Your task to perform on an android device: turn on wifi Image 0: 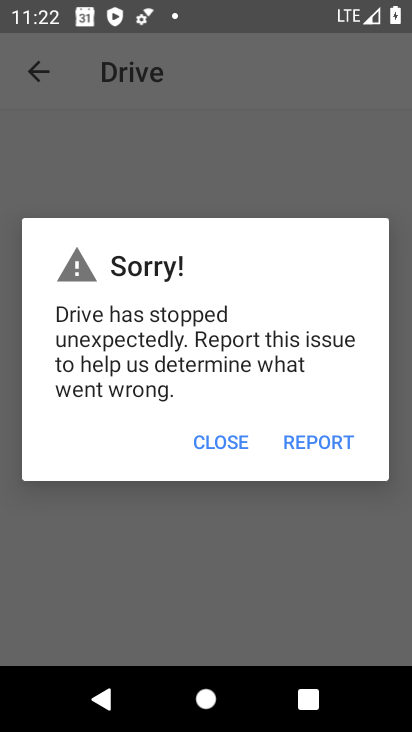
Step 0: press home button
Your task to perform on an android device: turn on wifi Image 1: 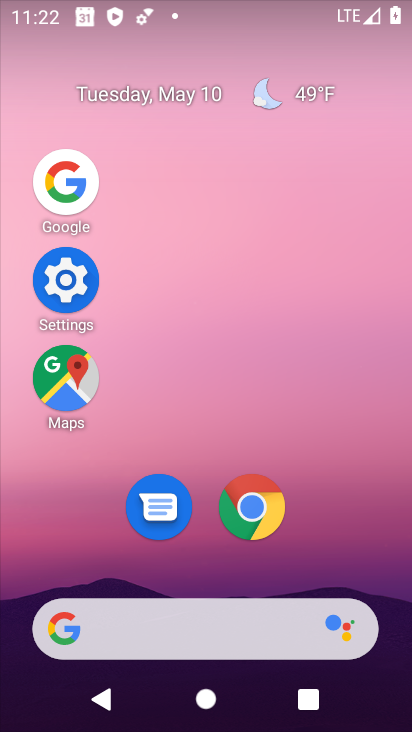
Step 1: click (64, 275)
Your task to perform on an android device: turn on wifi Image 2: 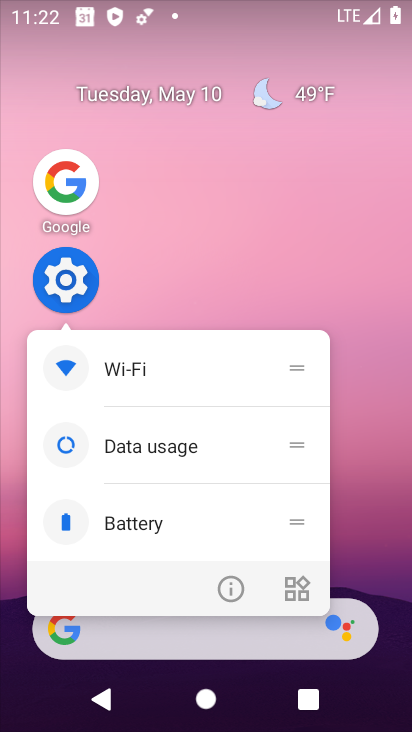
Step 2: click (136, 356)
Your task to perform on an android device: turn on wifi Image 3: 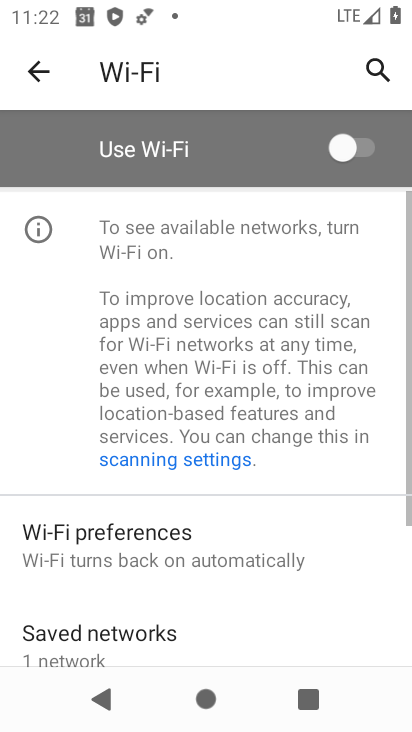
Step 3: click (327, 164)
Your task to perform on an android device: turn on wifi Image 4: 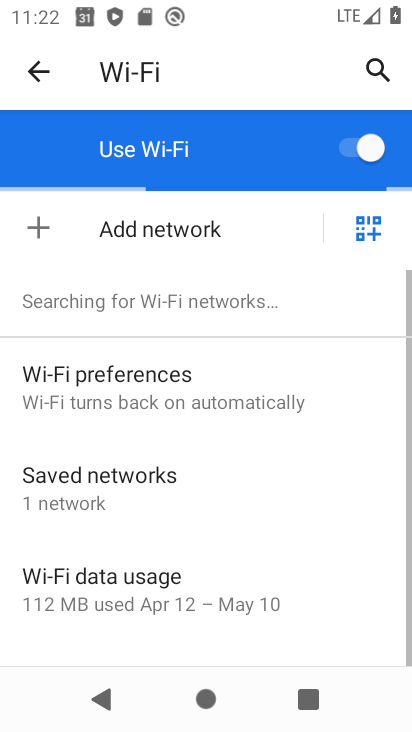
Step 4: task complete